Your task to perform on an android device: turn off translation in the chrome app Image 0: 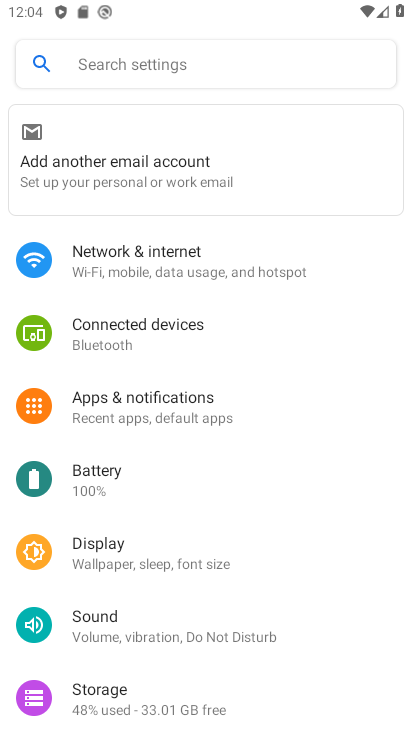
Step 0: press home button
Your task to perform on an android device: turn off translation in the chrome app Image 1: 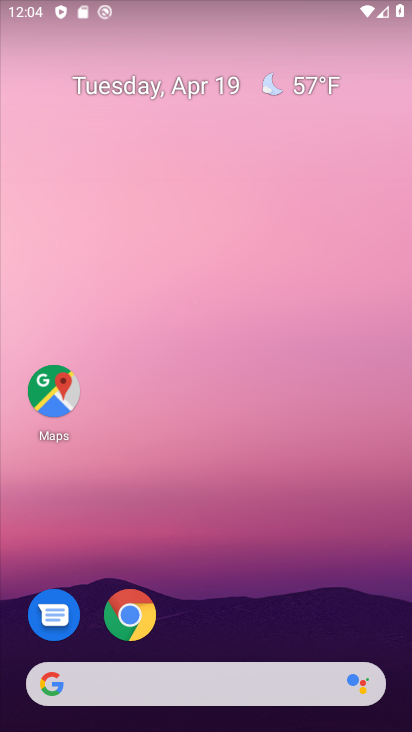
Step 1: click (137, 606)
Your task to perform on an android device: turn off translation in the chrome app Image 2: 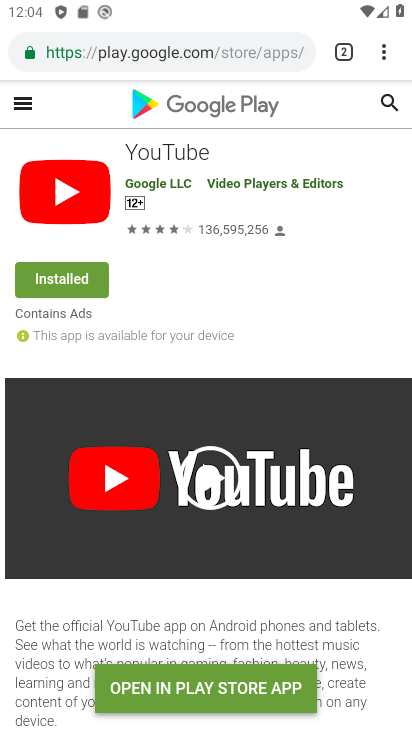
Step 2: click (384, 56)
Your task to perform on an android device: turn off translation in the chrome app Image 3: 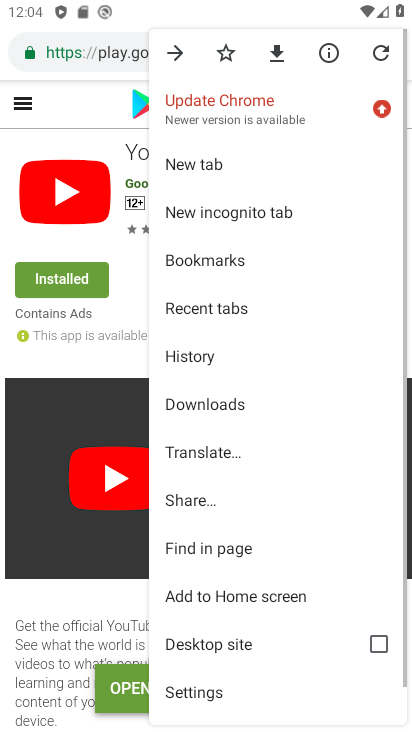
Step 3: drag from (253, 629) to (288, 318)
Your task to perform on an android device: turn off translation in the chrome app Image 4: 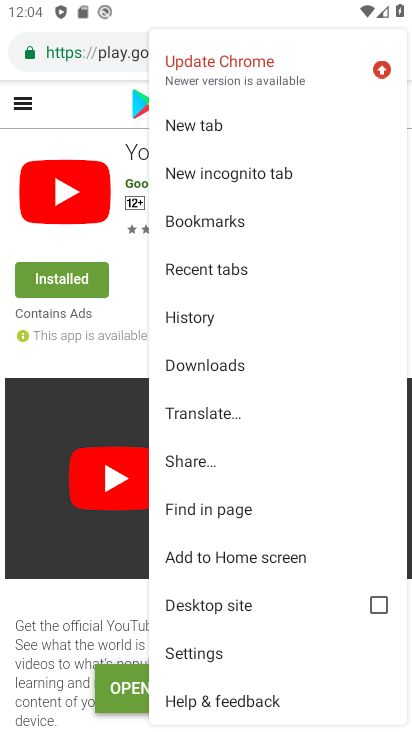
Step 4: click (218, 650)
Your task to perform on an android device: turn off translation in the chrome app Image 5: 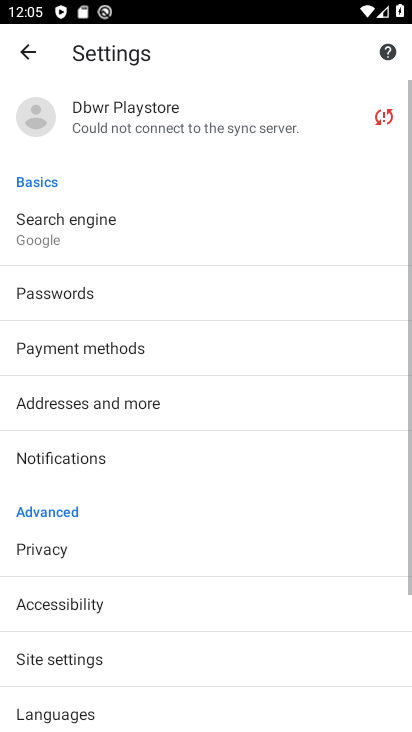
Step 5: drag from (160, 559) to (157, 309)
Your task to perform on an android device: turn off translation in the chrome app Image 6: 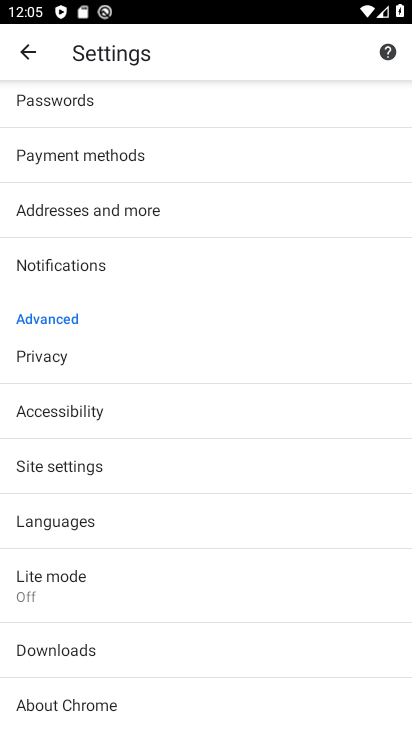
Step 6: click (84, 530)
Your task to perform on an android device: turn off translation in the chrome app Image 7: 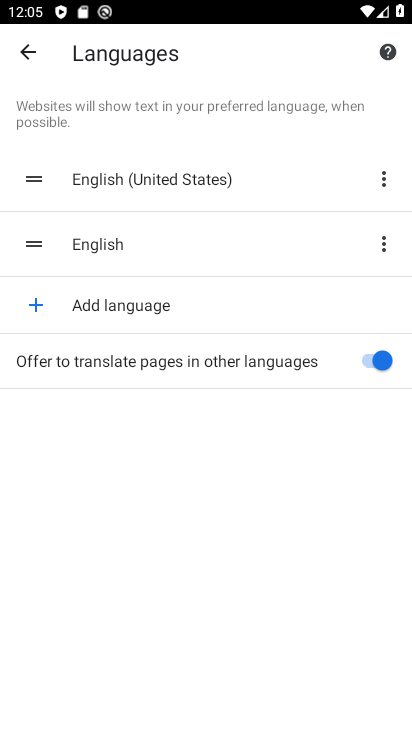
Step 7: click (369, 365)
Your task to perform on an android device: turn off translation in the chrome app Image 8: 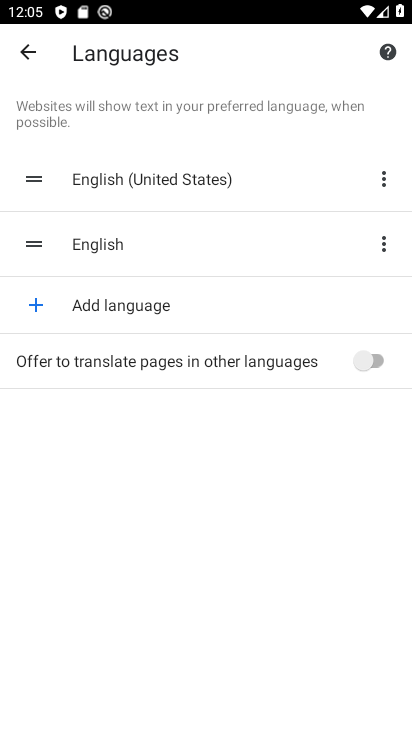
Step 8: task complete